Your task to perform on an android device: Go to notification settings Image 0: 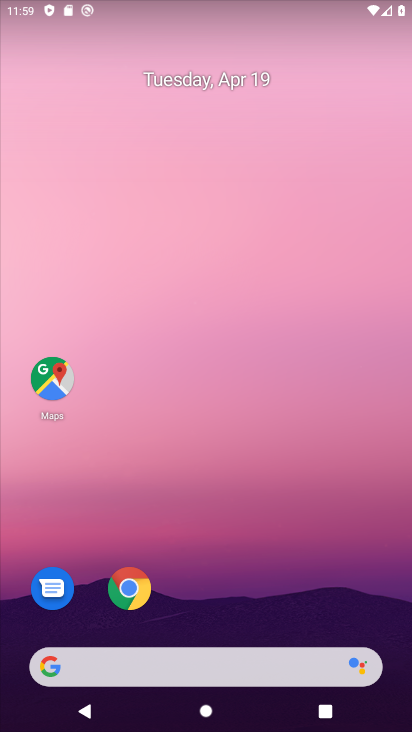
Step 0: drag from (210, 618) to (193, 54)
Your task to perform on an android device: Go to notification settings Image 1: 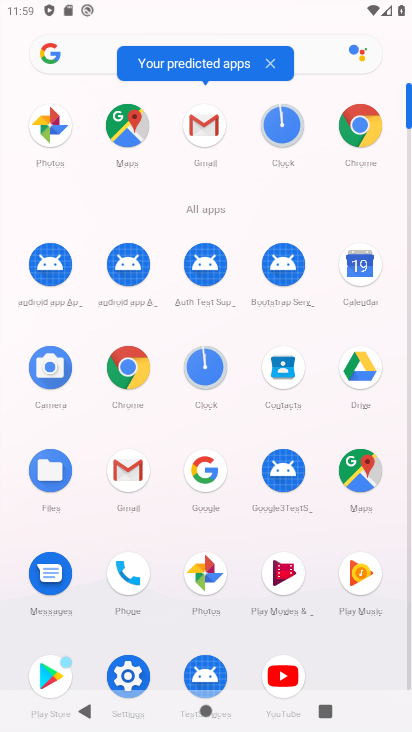
Step 1: click (117, 675)
Your task to perform on an android device: Go to notification settings Image 2: 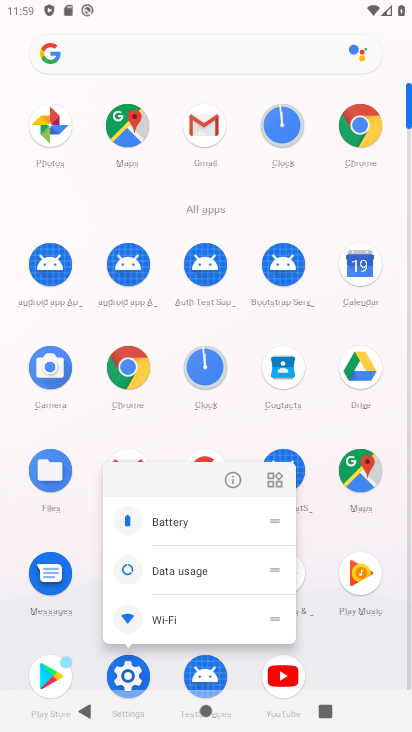
Step 2: click (114, 675)
Your task to perform on an android device: Go to notification settings Image 3: 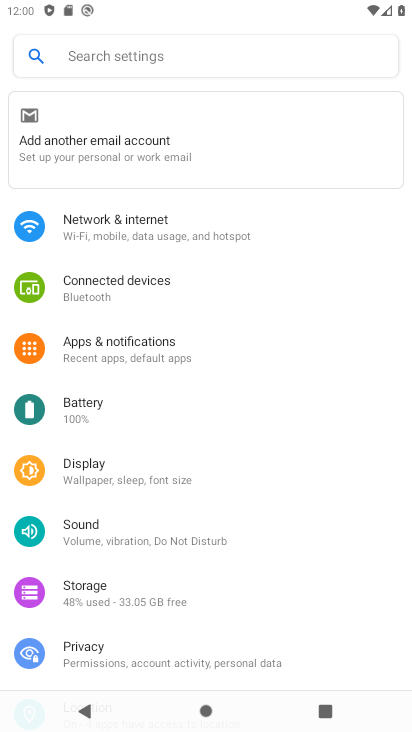
Step 3: click (112, 350)
Your task to perform on an android device: Go to notification settings Image 4: 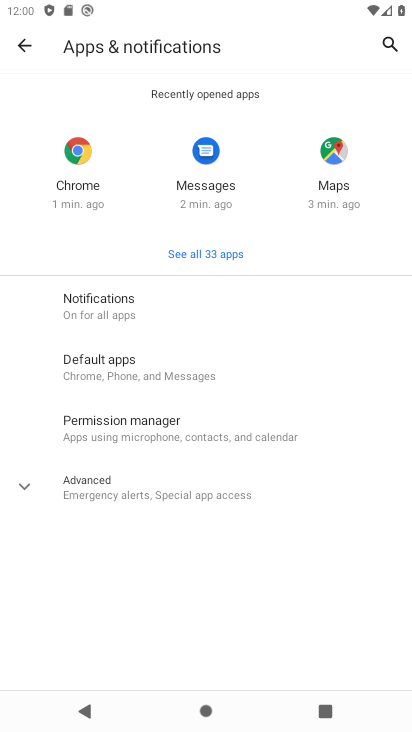
Step 4: click (126, 300)
Your task to perform on an android device: Go to notification settings Image 5: 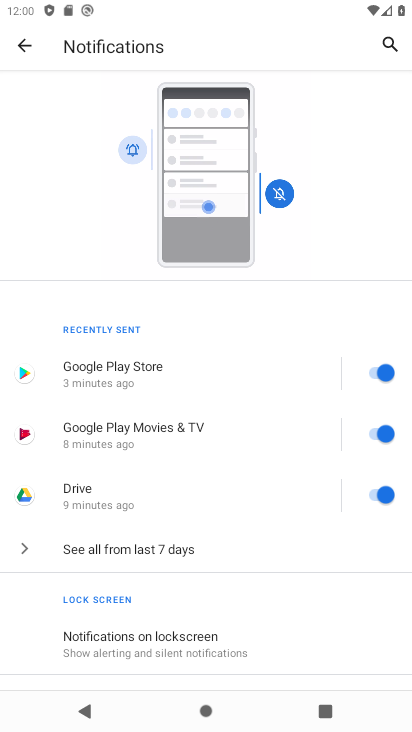
Step 5: task complete